Your task to perform on an android device: What's the weather like in Moscow? Image 0: 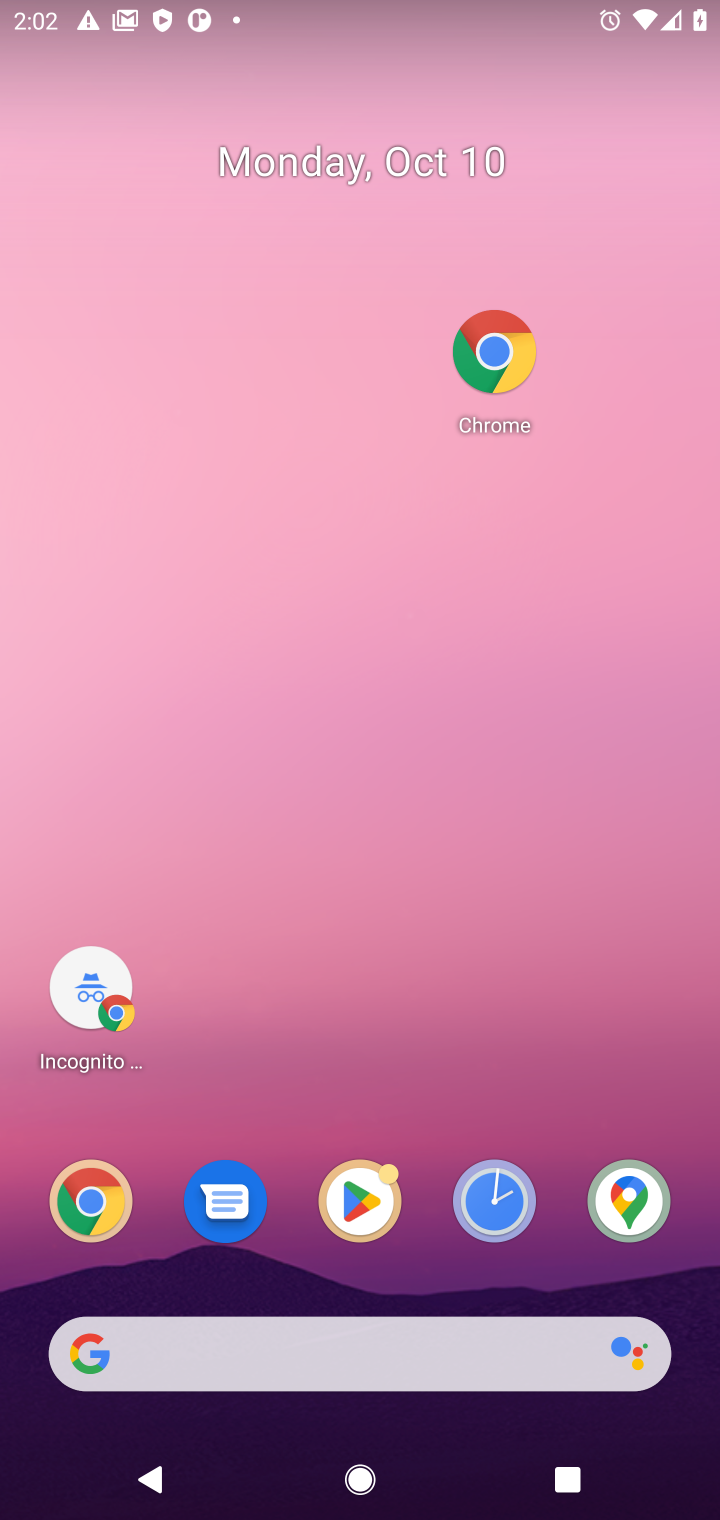
Step 0: click (338, 1344)
Your task to perform on an android device: What's the weather like in Moscow? Image 1: 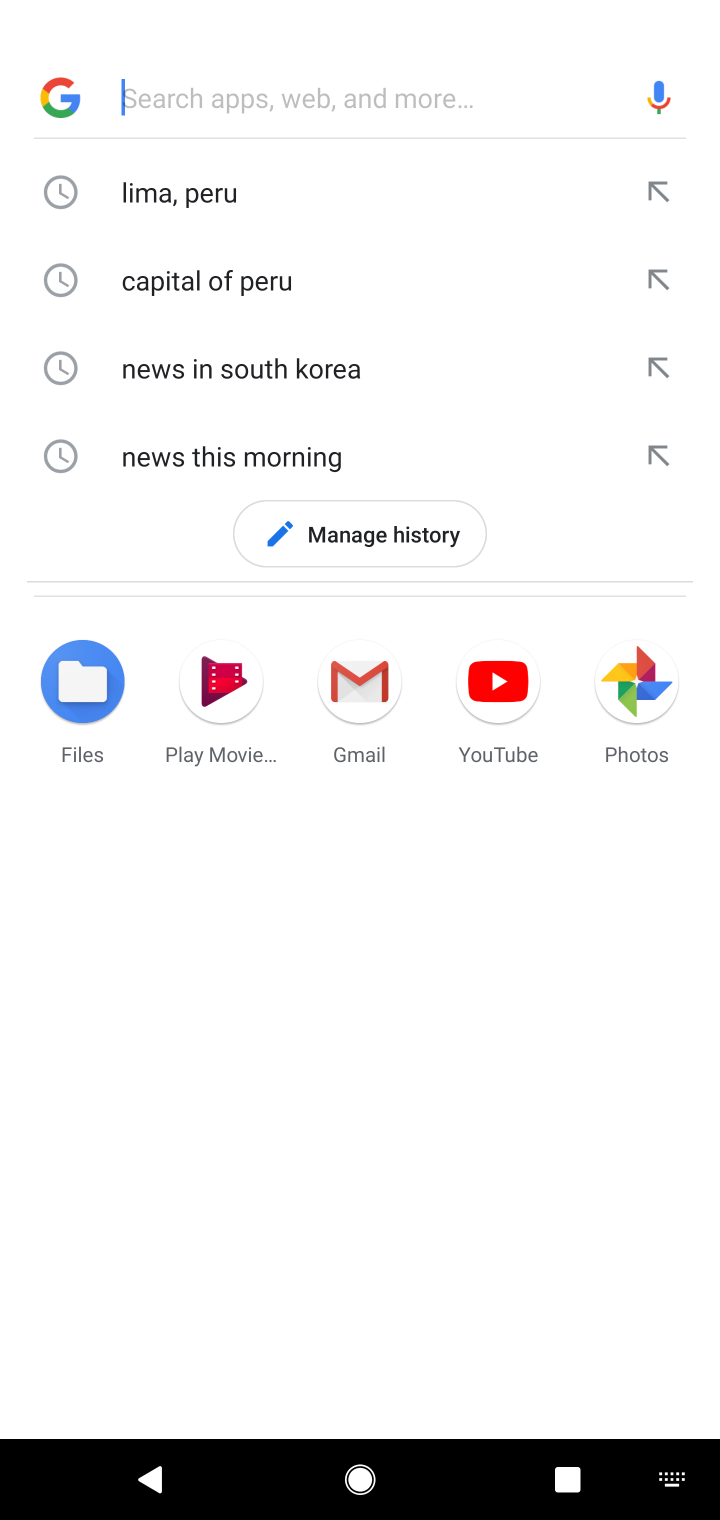
Step 1: type "weather in moscow"
Your task to perform on an android device: What's the weather like in Moscow? Image 2: 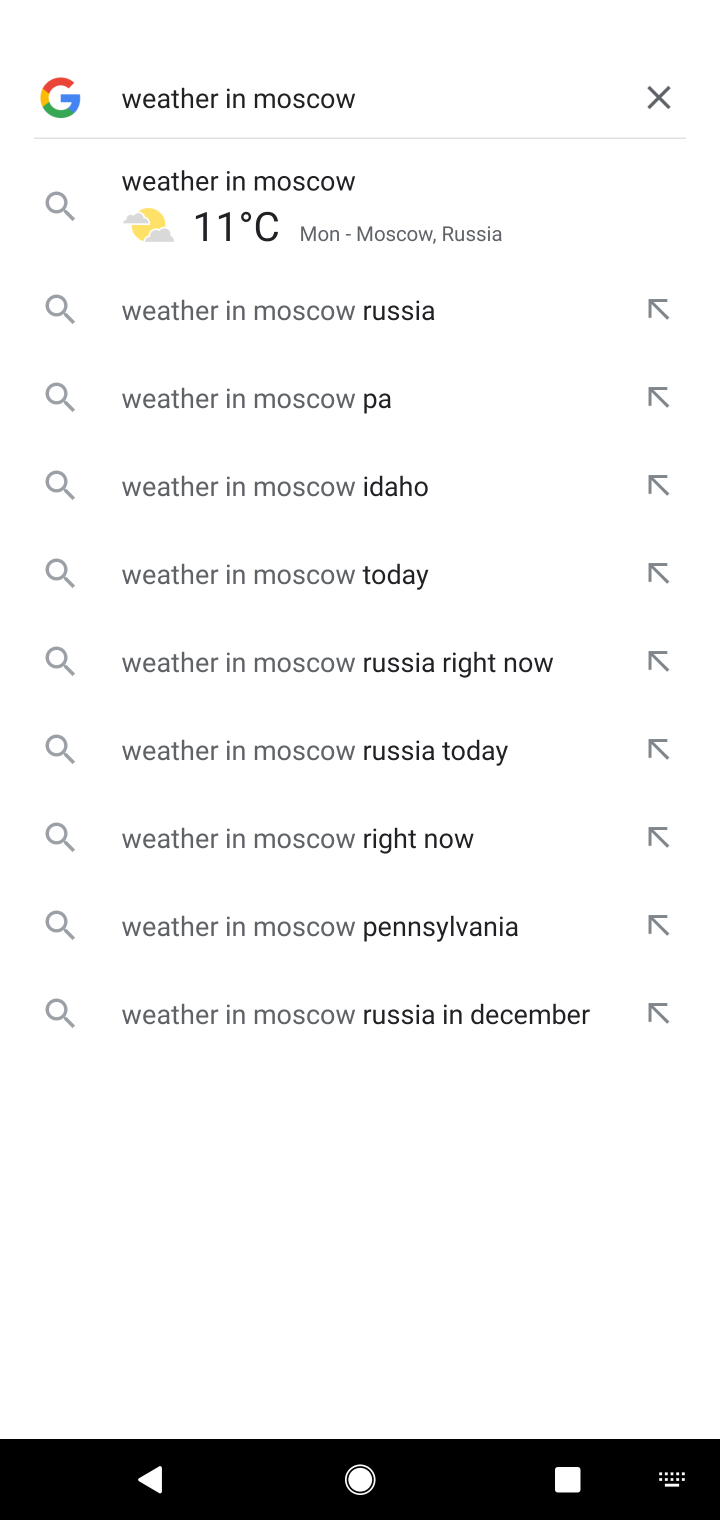
Step 2: click (240, 192)
Your task to perform on an android device: What's the weather like in Moscow? Image 3: 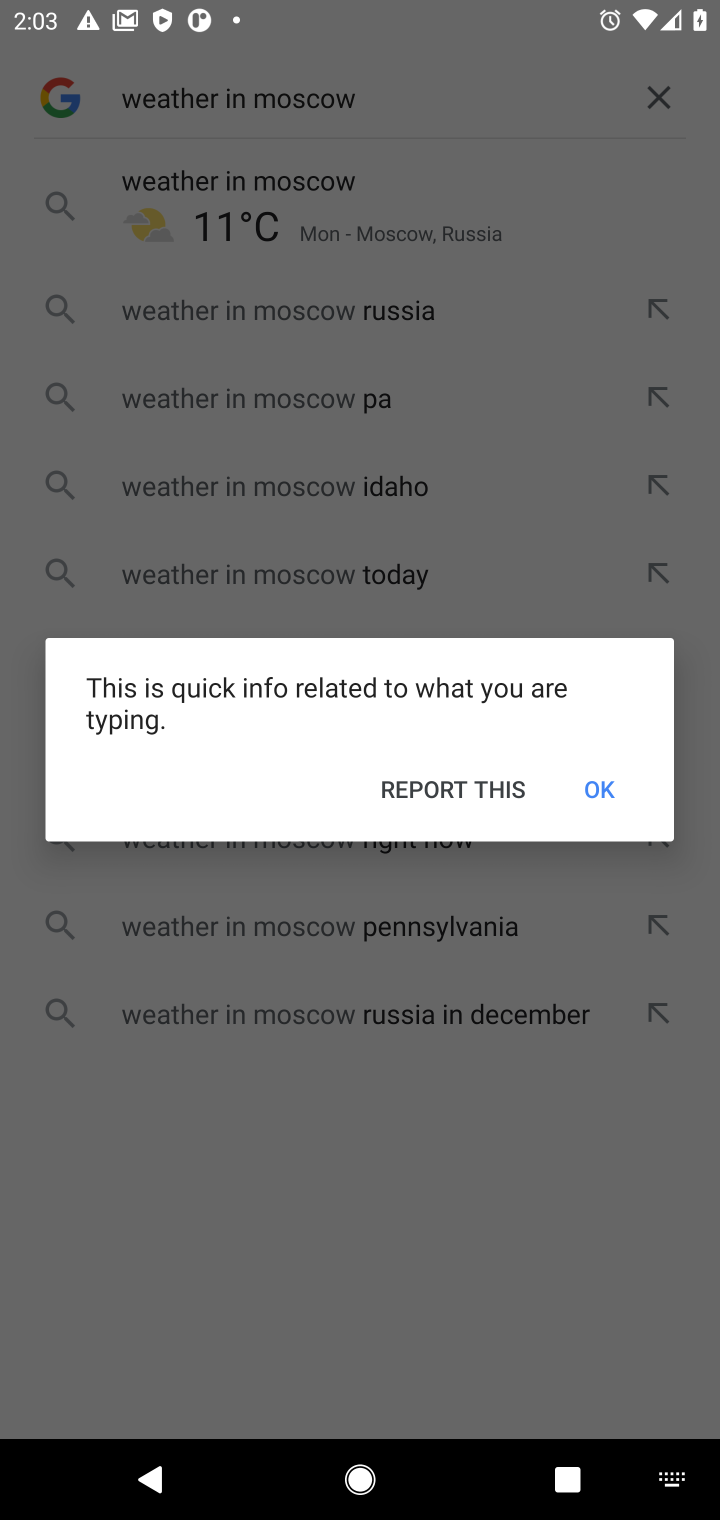
Step 3: click (609, 795)
Your task to perform on an android device: What's the weather like in Moscow? Image 4: 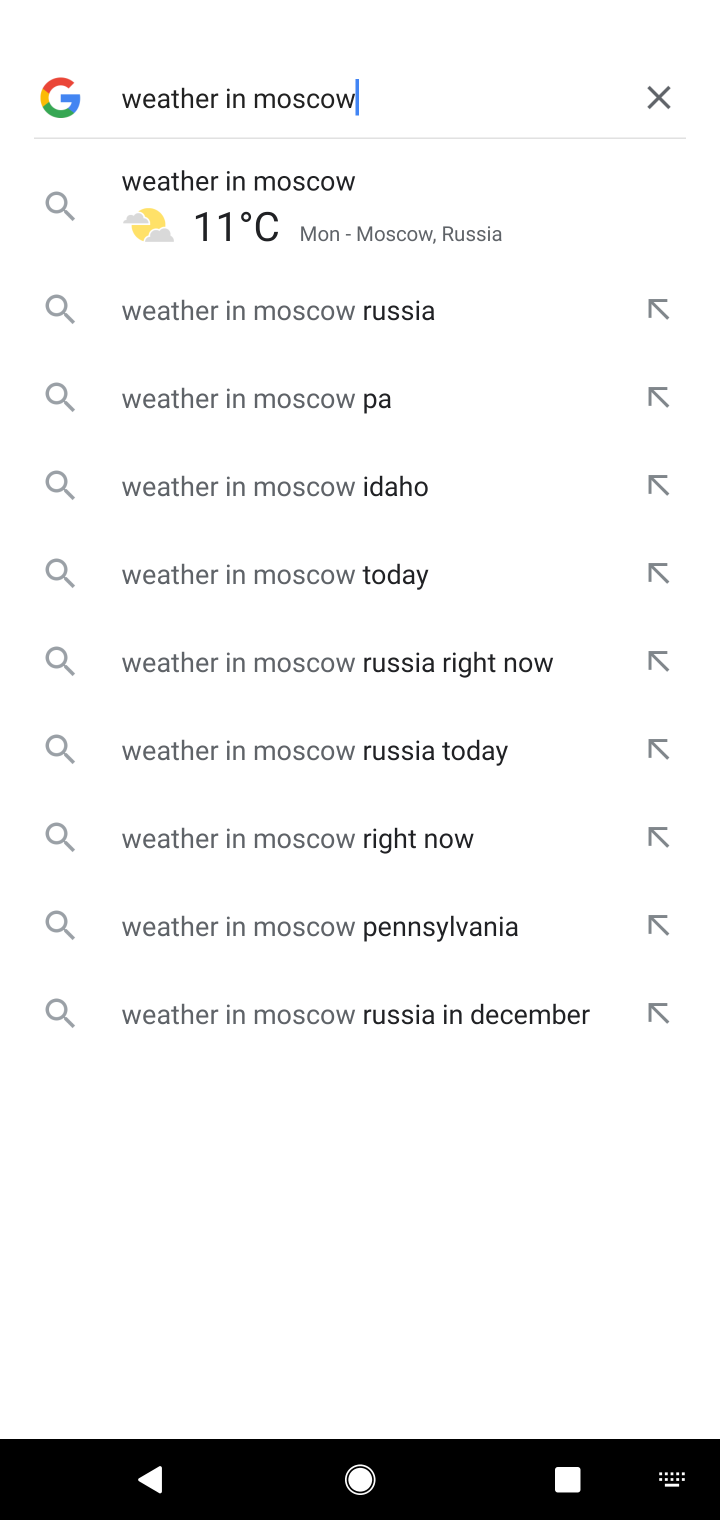
Step 4: click (293, 213)
Your task to perform on an android device: What's the weather like in Moscow? Image 5: 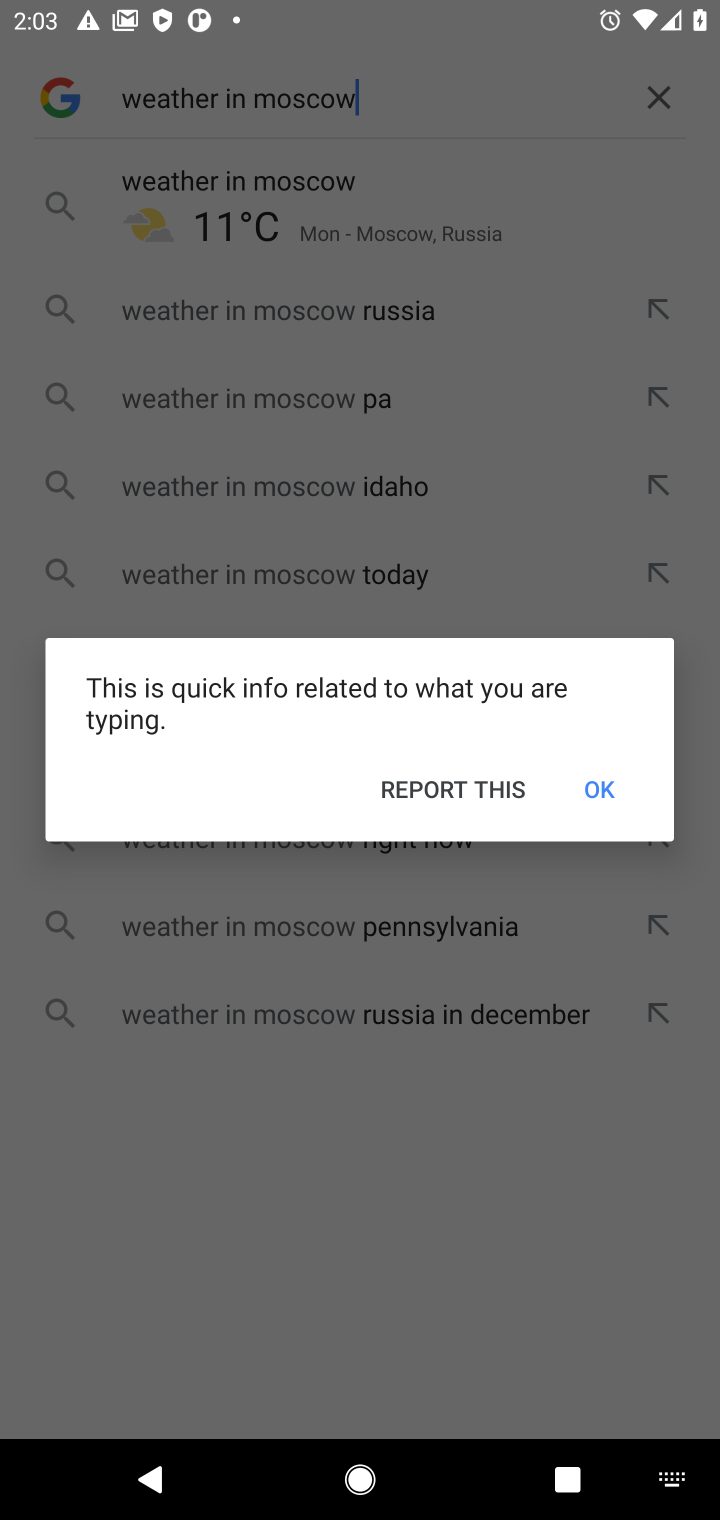
Step 5: click (619, 796)
Your task to perform on an android device: What's the weather like in Moscow? Image 6: 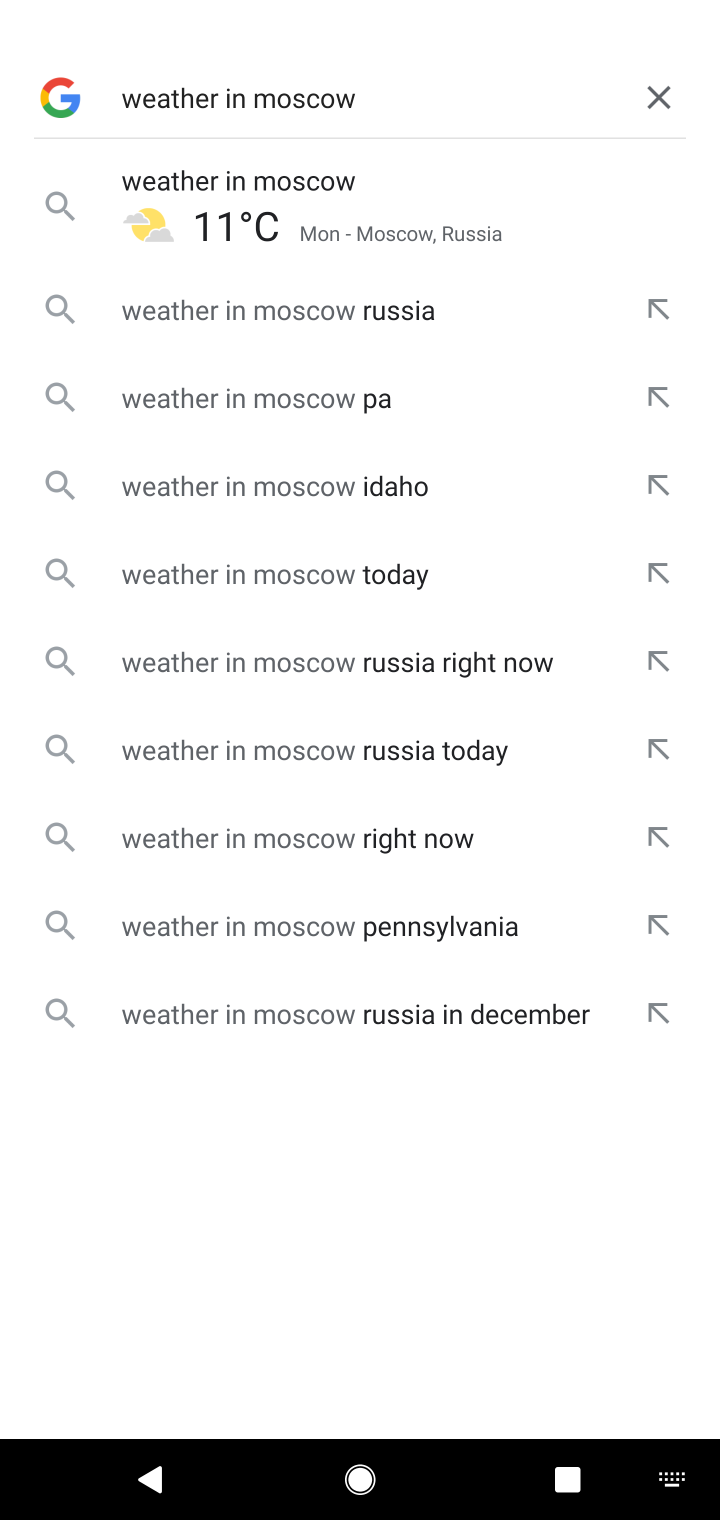
Step 6: click (223, 321)
Your task to perform on an android device: What's the weather like in Moscow? Image 7: 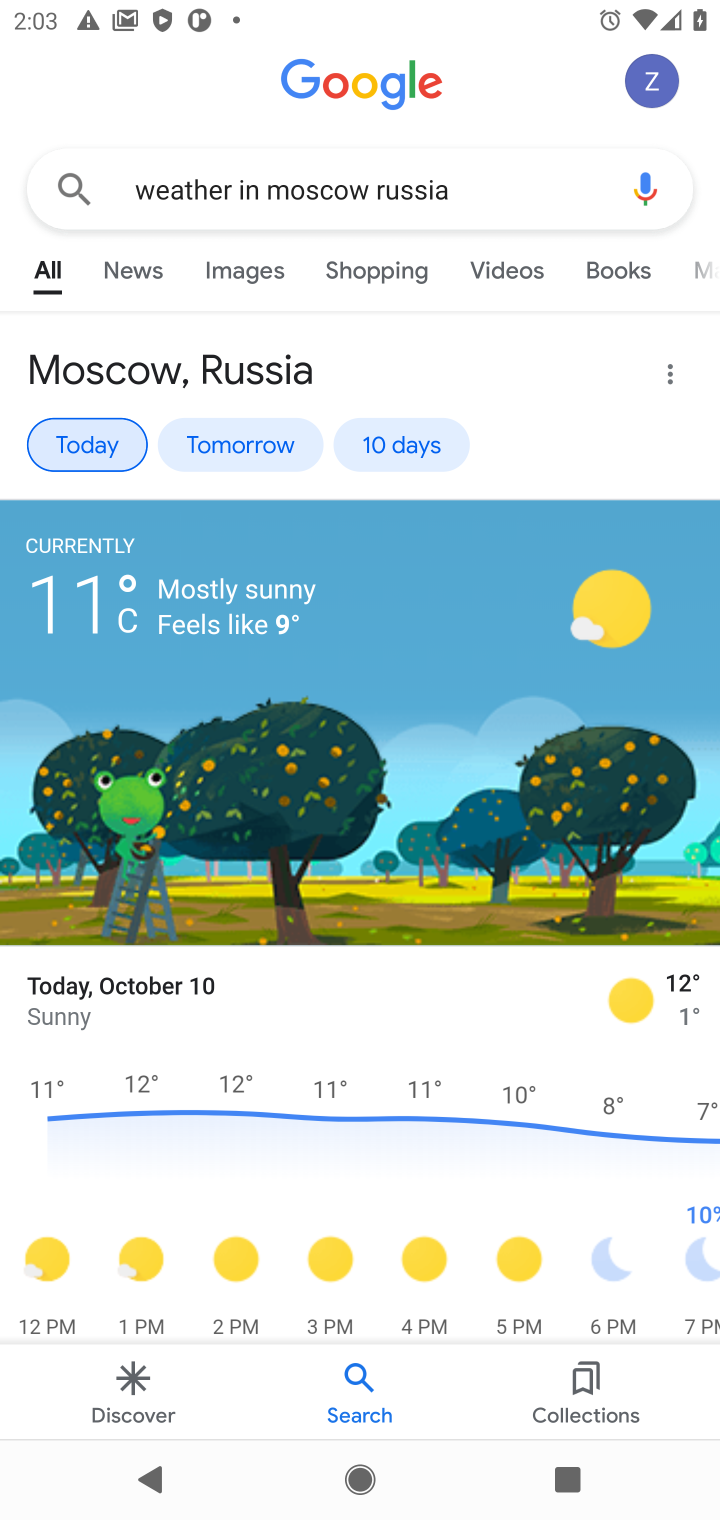
Step 7: task complete